Your task to perform on an android device: clear all cookies in the chrome app Image 0: 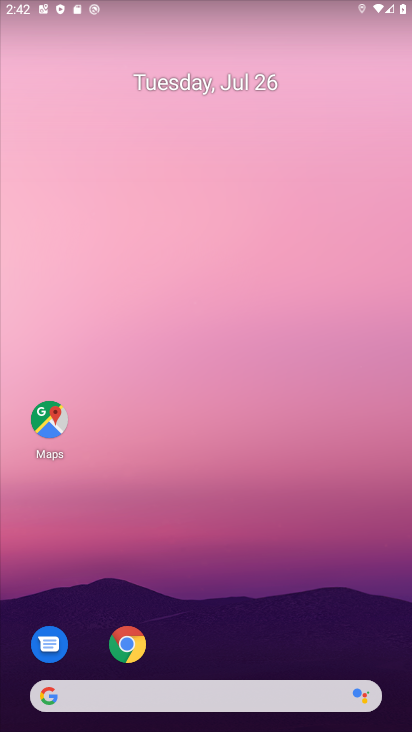
Step 0: press home button
Your task to perform on an android device: clear all cookies in the chrome app Image 1: 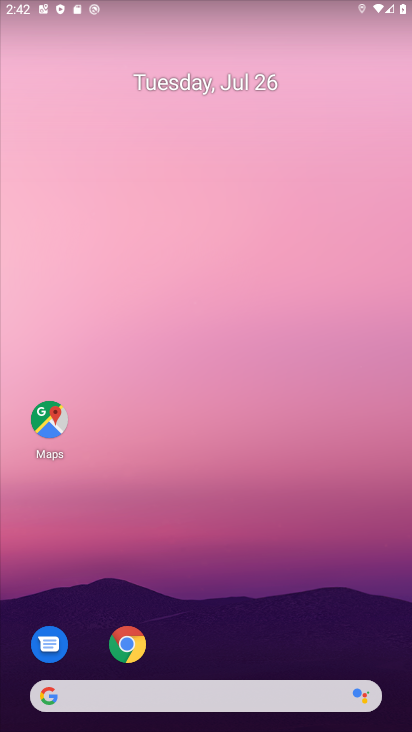
Step 1: press home button
Your task to perform on an android device: clear all cookies in the chrome app Image 2: 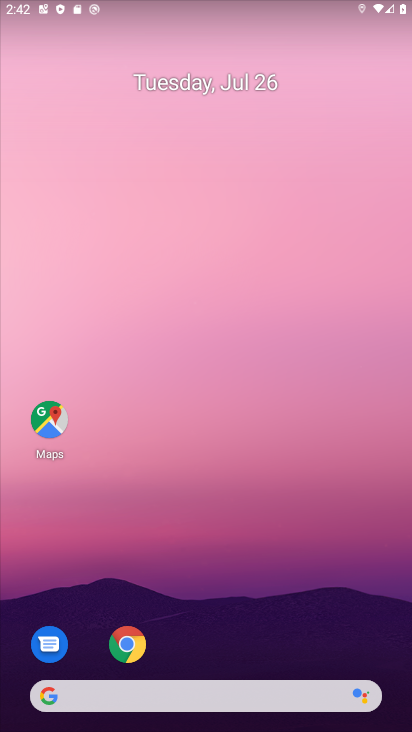
Step 2: click (126, 645)
Your task to perform on an android device: clear all cookies in the chrome app Image 3: 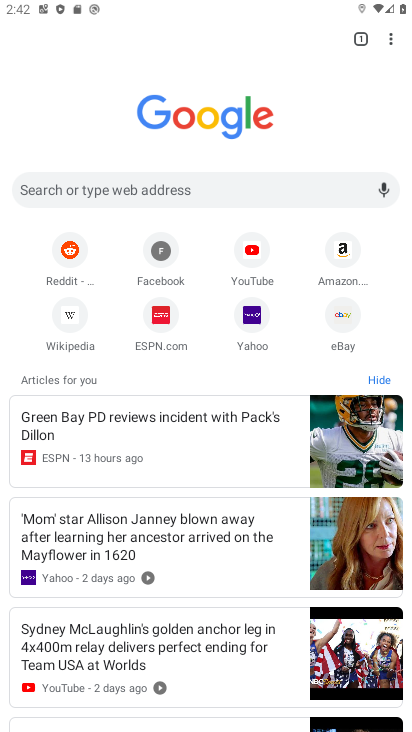
Step 3: drag from (390, 46) to (247, 327)
Your task to perform on an android device: clear all cookies in the chrome app Image 4: 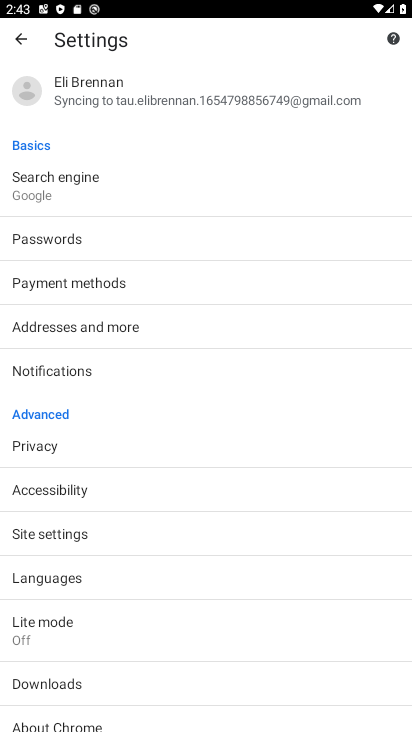
Step 4: click (53, 440)
Your task to perform on an android device: clear all cookies in the chrome app Image 5: 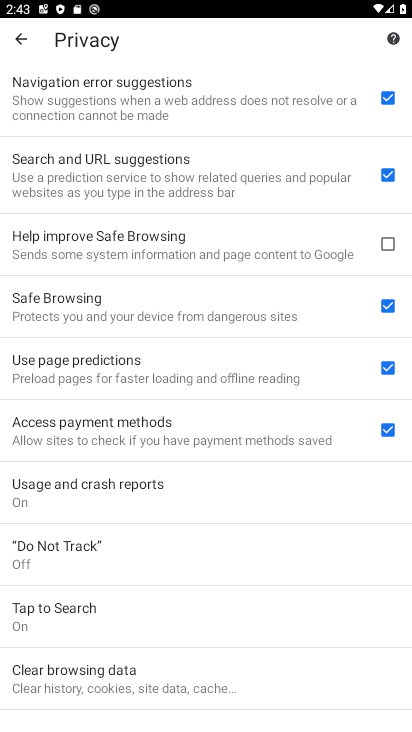
Step 5: click (173, 679)
Your task to perform on an android device: clear all cookies in the chrome app Image 6: 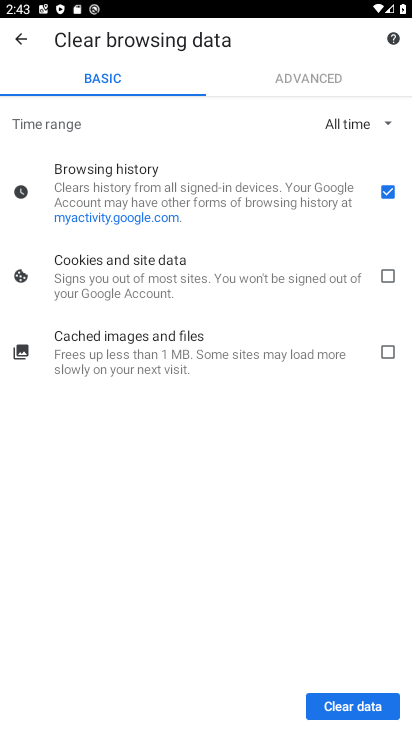
Step 6: click (388, 279)
Your task to perform on an android device: clear all cookies in the chrome app Image 7: 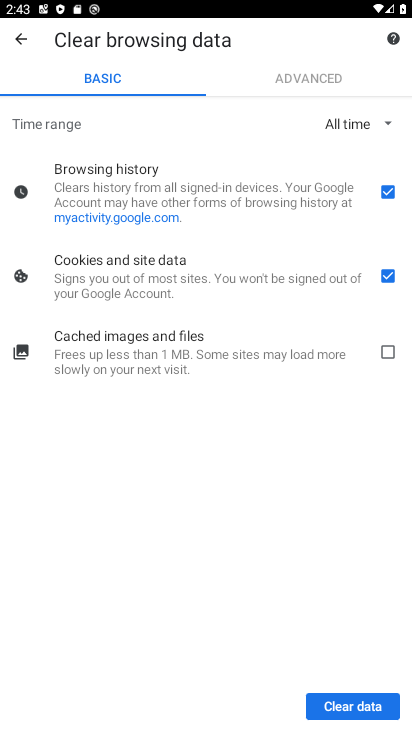
Step 7: click (390, 186)
Your task to perform on an android device: clear all cookies in the chrome app Image 8: 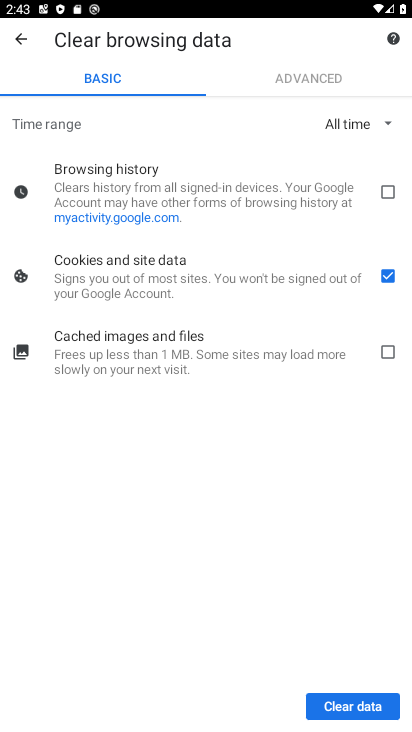
Step 8: click (344, 710)
Your task to perform on an android device: clear all cookies in the chrome app Image 9: 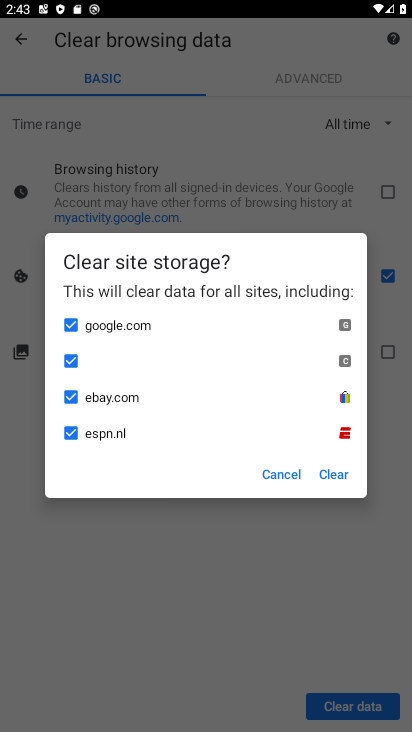
Step 9: click (337, 478)
Your task to perform on an android device: clear all cookies in the chrome app Image 10: 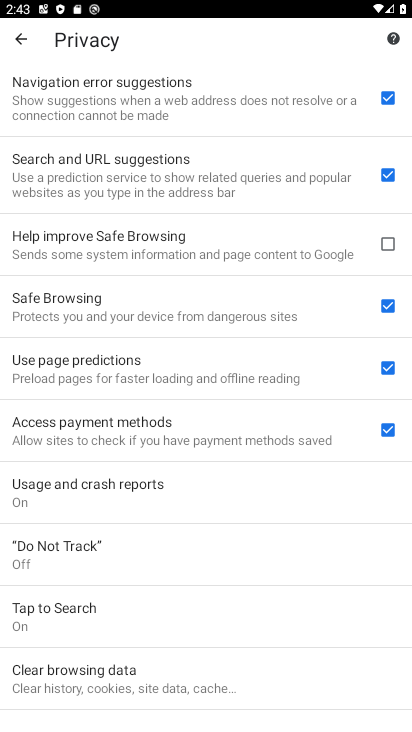
Step 10: task complete